Your task to perform on an android device: Search for the best selling book on Amazon. Image 0: 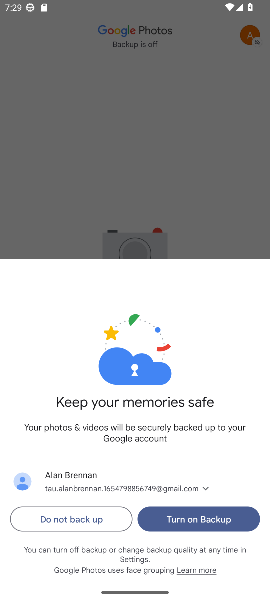
Step 0: click (211, 525)
Your task to perform on an android device: Search for the best selling book on Amazon. Image 1: 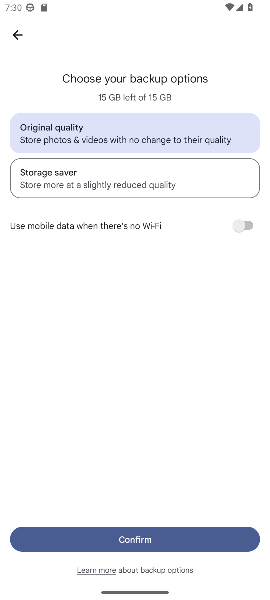
Step 1: press home button
Your task to perform on an android device: Search for the best selling book on Amazon. Image 2: 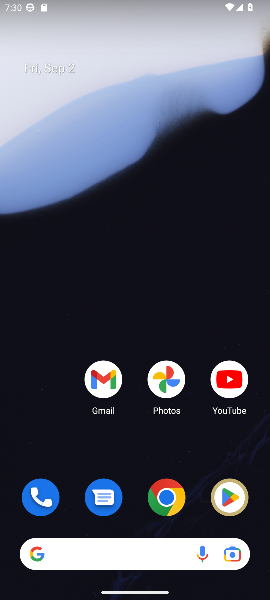
Step 2: drag from (125, 506) to (169, 164)
Your task to perform on an android device: Search for the best selling book on Amazon. Image 3: 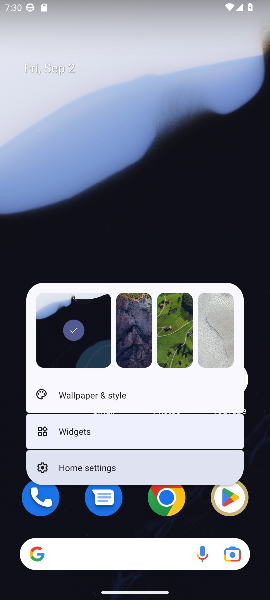
Step 3: click (132, 514)
Your task to perform on an android device: Search for the best selling book on Amazon. Image 4: 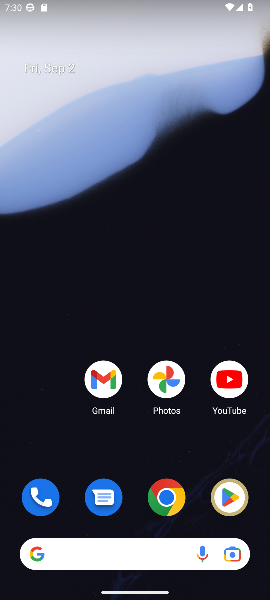
Step 4: drag from (132, 514) to (155, 116)
Your task to perform on an android device: Search for the best selling book on Amazon. Image 5: 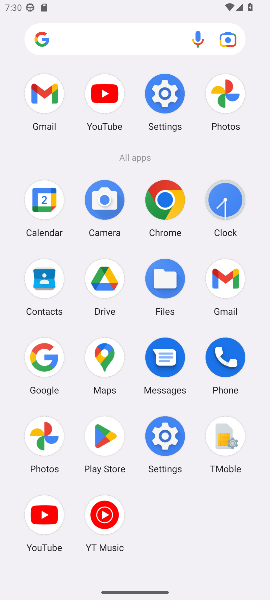
Step 5: click (35, 368)
Your task to perform on an android device: Search for the best selling book on Amazon. Image 6: 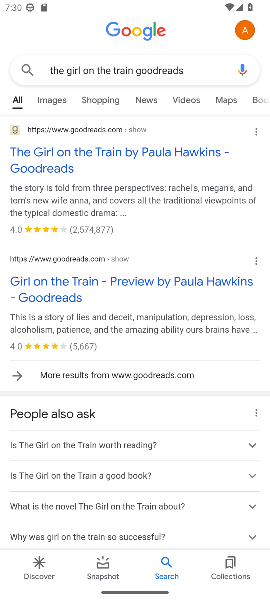
Step 6: click (201, 79)
Your task to perform on an android device: Search for the best selling book on Amazon. Image 7: 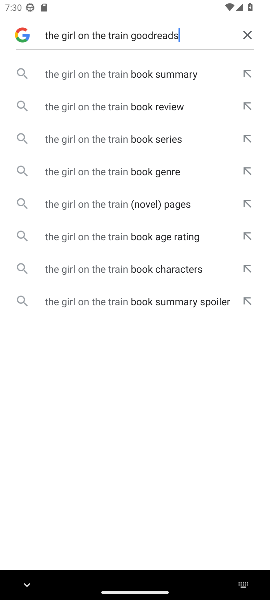
Step 7: click (250, 34)
Your task to perform on an android device: Search for the best selling book on Amazon. Image 8: 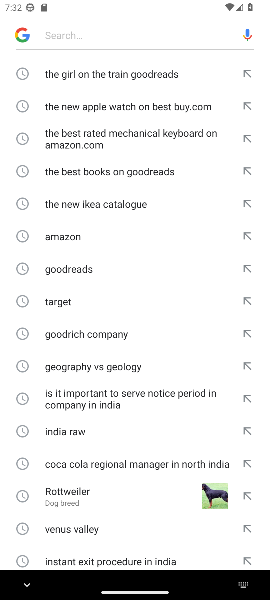
Step 8: type "the best selling book on Amazon."
Your task to perform on an android device: Search for the best selling book on Amazon. Image 9: 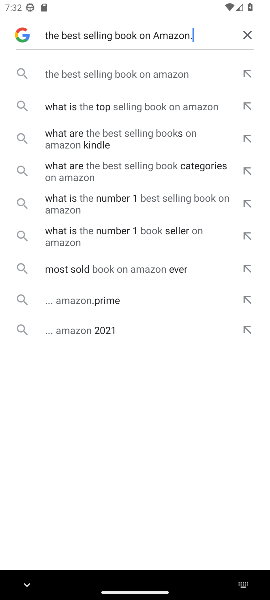
Step 9: click (174, 61)
Your task to perform on an android device: Search for the best selling book on Amazon. Image 10: 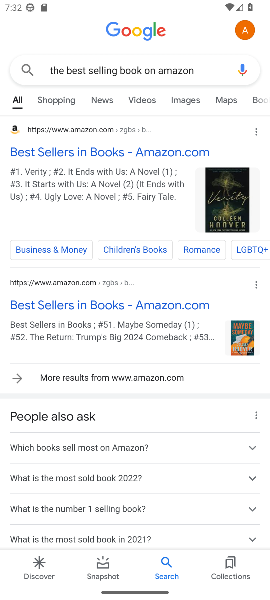
Step 10: task complete